Your task to perform on an android device: toggle improve location accuracy Image 0: 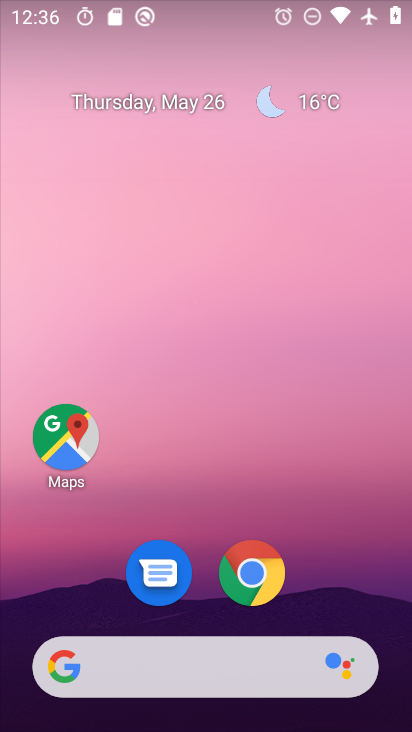
Step 0: drag from (339, 624) to (338, 18)
Your task to perform on an android device: toggle improve location accuracy Image 1: 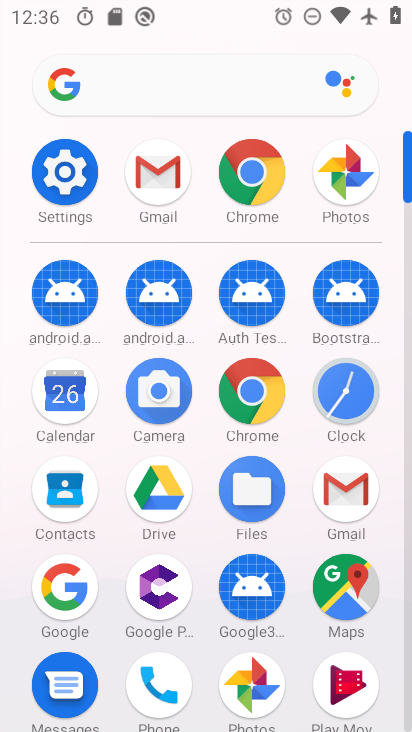
Step 1: click (72, 178)
Your task to perform on an android device: toggle improve location accuracy Image 2: 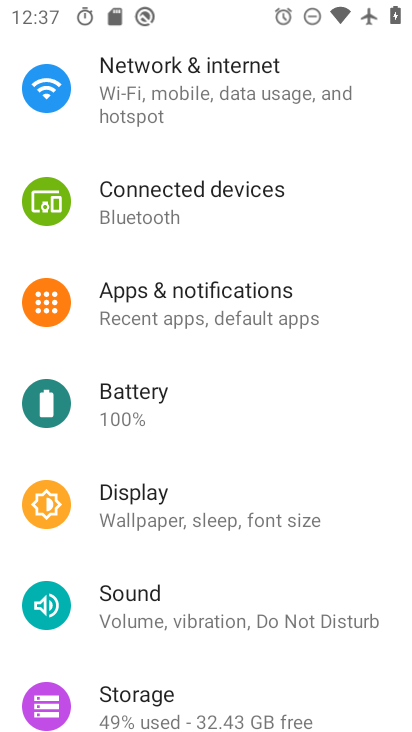
Step 2: drag from (275, 525) to (274, 170)
Your task to perform on an android device: toggle improve location accuracy Image 3: 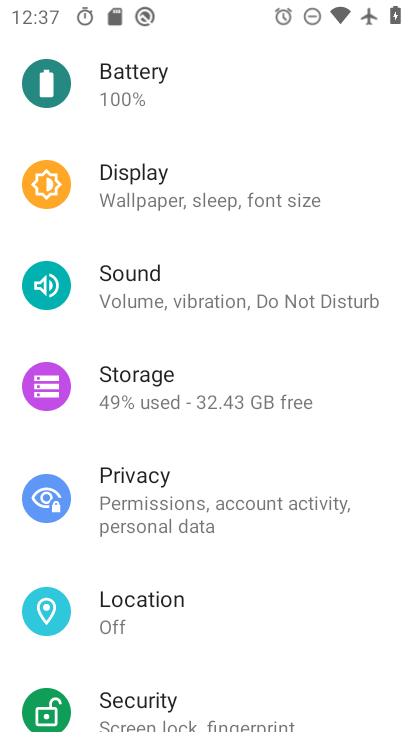
Step 3: click (122, 614)
Your task to perform on an android device: toggle improve location accuracy Image 4: 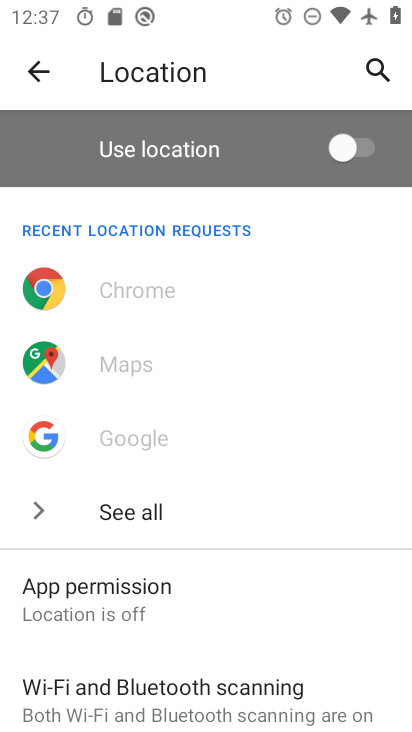
Step 4: drag from (219, 569) to (214, 161)
Your task to perform on an android device: toggle improve location accuracy Image 5: 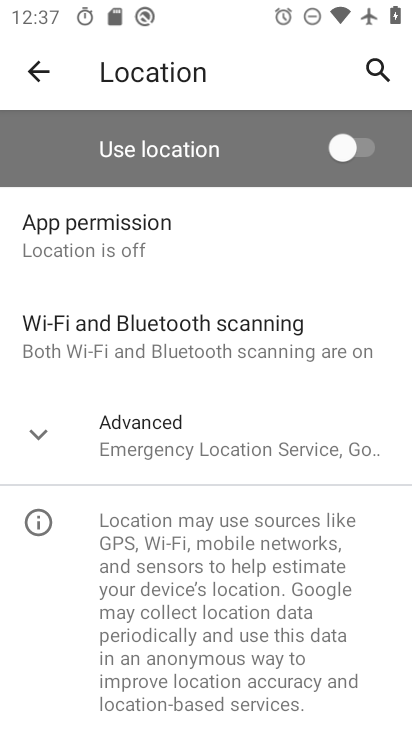
Step 5: click (34, 442)
Your task to perform on an android device: toggle improve location accuracy Image 6: 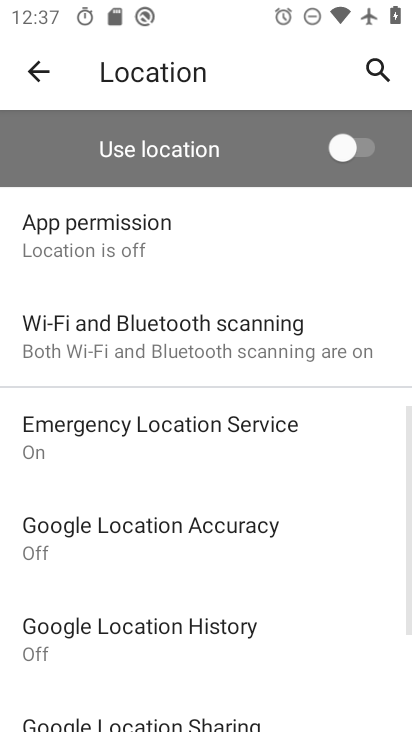
Step 6: click (152, 526)
Your task to perform on an android device: toggle improve location accuracy Image 7: 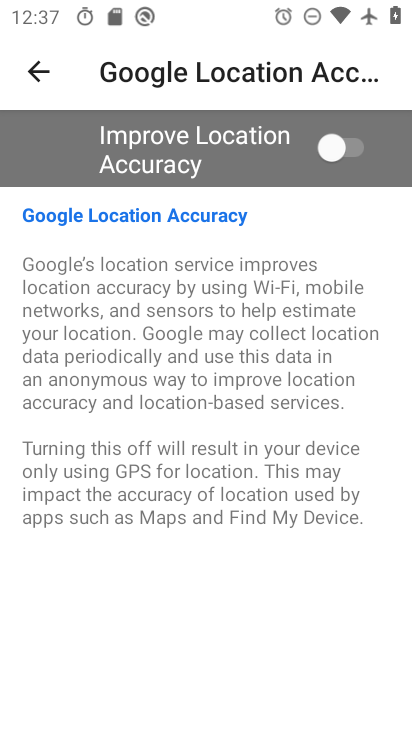
Step 7: click (337, 158)
Your task to perform on an android device: toggle improve location accuracy Image 8: 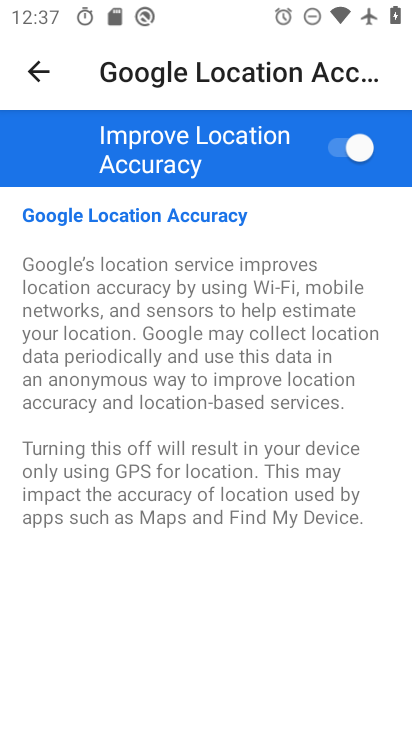
Step 8: task complete